Your task to perform on an android device: Open calendar and show me the fourth week of next month Image 0: 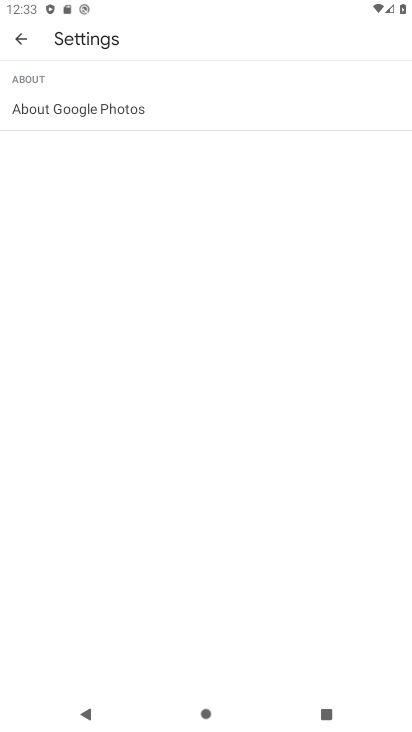
Step 0: click (24, 40)
Your task to perform on an android device: Open calendar and show me the fourth week of next month Image 1: 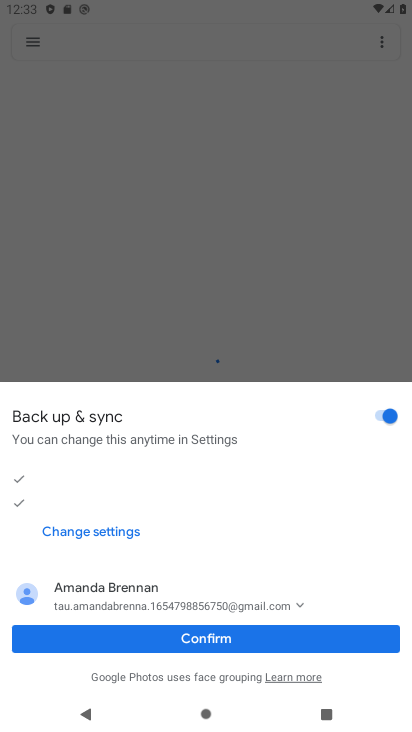
Step 1: press home button
Your task to perform on an android device: Open calendar and show me the fourth week of next month Image 2: 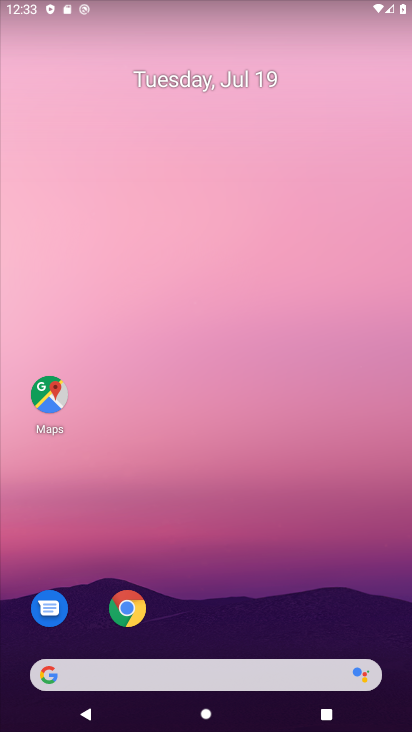
Step 2: drag from (254, 536) to (269, 226)
Your task to perform on an android device: Open calendar and show me the fourth week of next month Image 3: 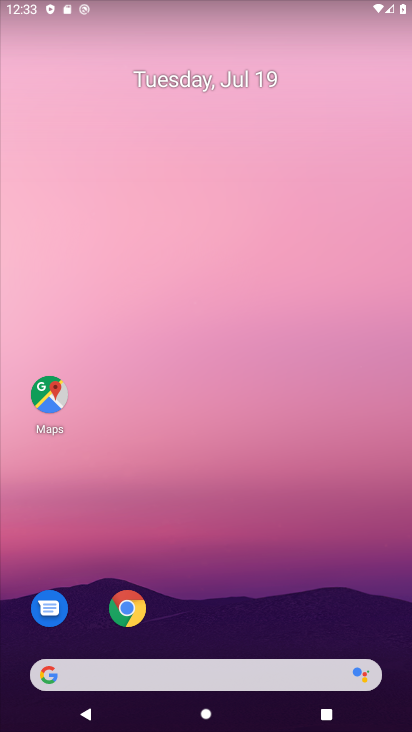
Step 3: drag from (269, 532) to (266, 319)
Your task to perform on an android device: Open calendar and show me the fourth week of next month Image 4: 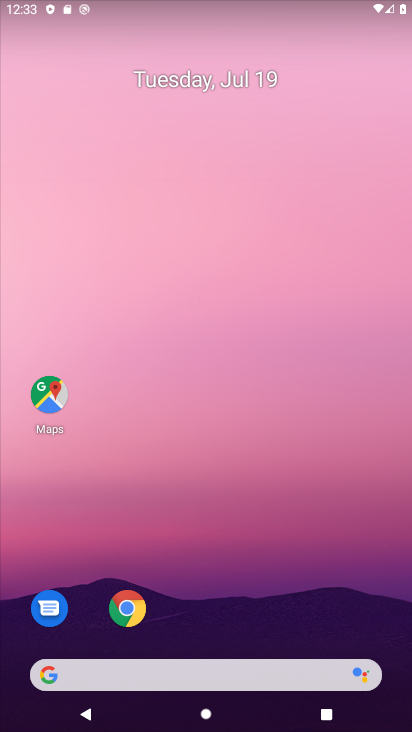
Step 4: drag from (262, 459) to (211, 121)
Your task to perform on an android device: Open calendar and show me the fourth week of next month Image 5: 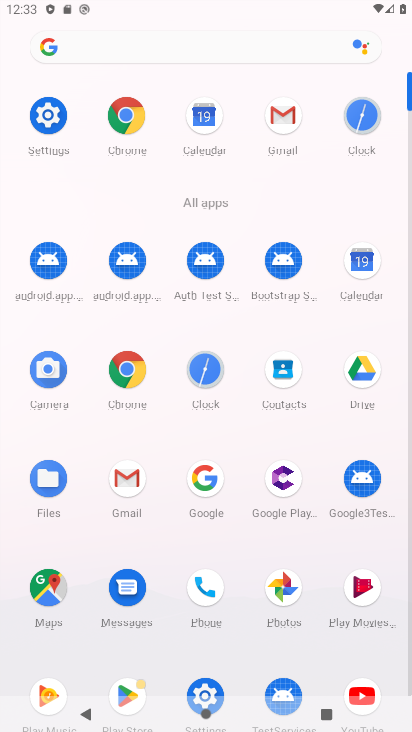
Step 5: click (282, 115)
Your task to perform on an android device: Open calendar and show me the fourth week of next month Image 6: 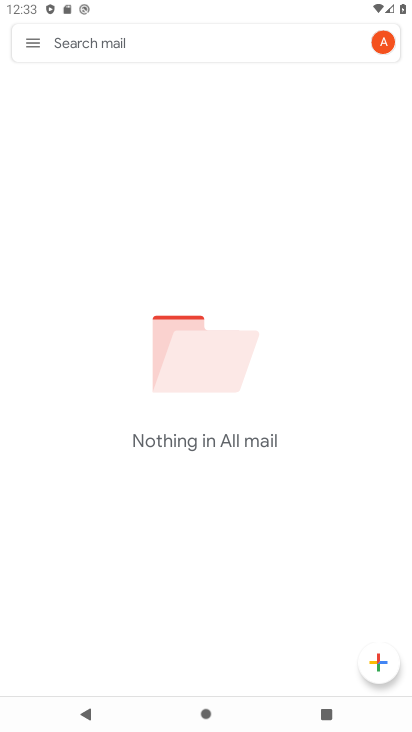
Step 6: click (36, 43)
Your task to perform on an android device: Open calendar and show me the fourth week of next month Image 7: 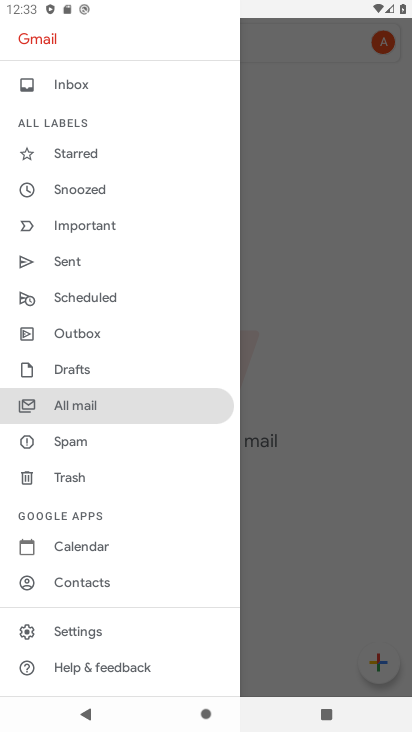
Step 7: press home button
Your task to perform on an android device: Open calendar and show me the fourth week of next month Image 8: 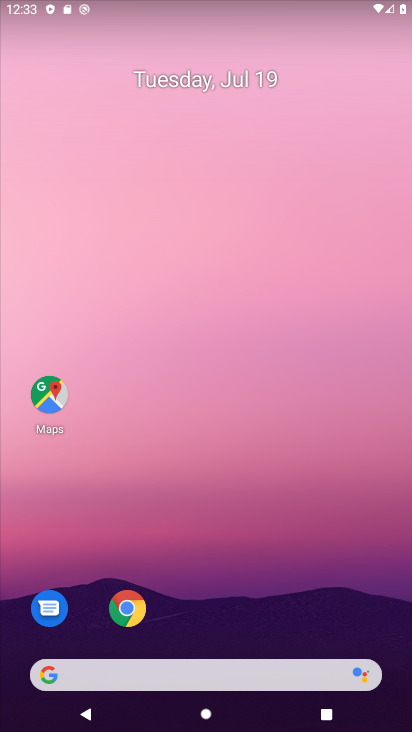
Step 8: drag from (291, 518) to (271, 241)
Your task to perform on an android device: Open calendar and show me the fourth week of next month Image 9: 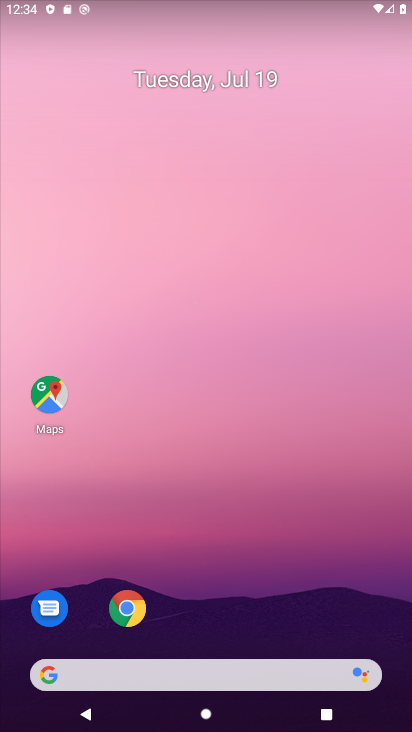
Step 9: drag from (234, 502) to (203, 69)
Your task to perform on an android device: Open calendar and show me the fourth week of next month Image 10: 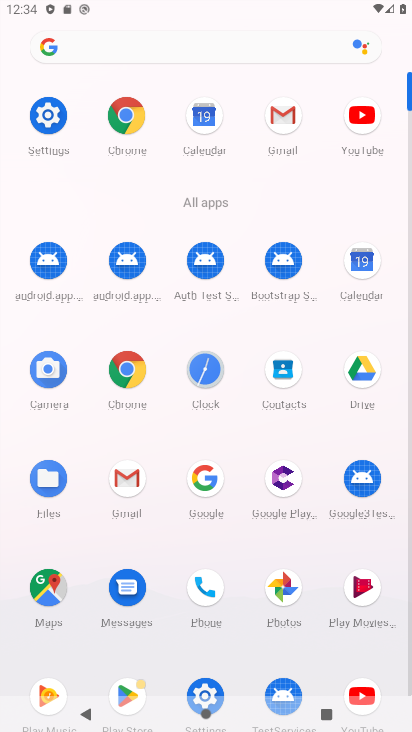
Step 10: click (362, 260)
Your task to perform on an android device: Open calendar and show me the fourth week of next month Image 11: 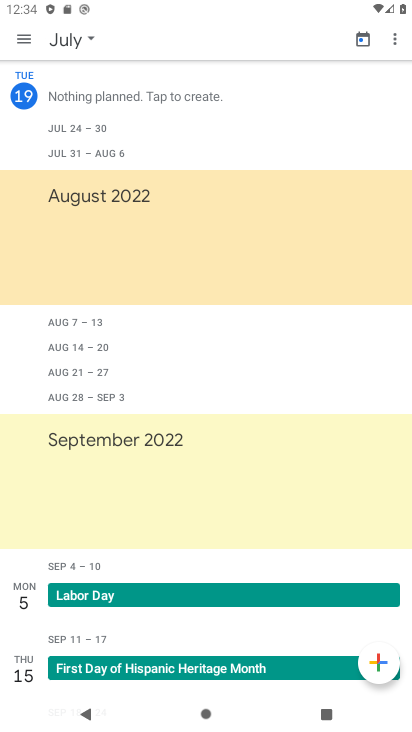
Step 11: click (27, 35)
Your task to perform on an android device: Open calendar and show me the fourth week of next month Image 12: 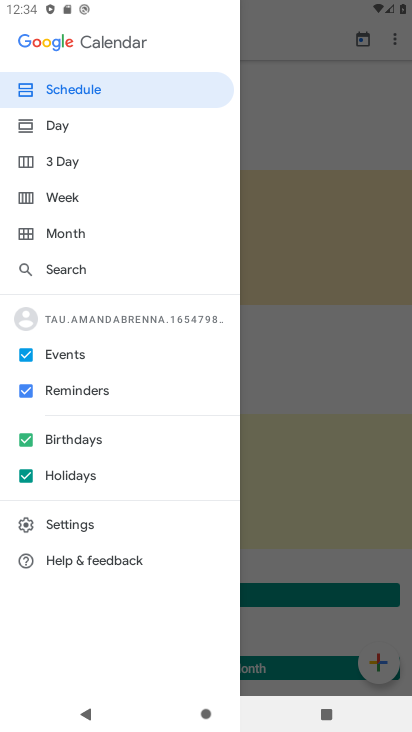
Step 12: click (332, 170)
Your task to perform on an android device: Open calendar and show me the fourth week of next month Image 13: 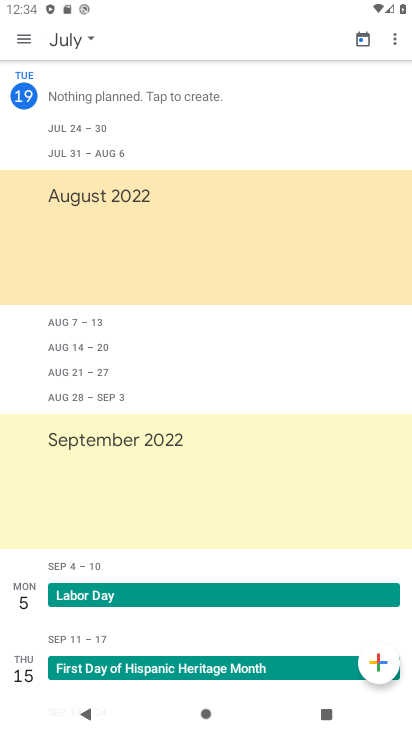
Step 13: task complete